Your task to perform on an android device: Open Google Chrome and open the bookmarks view Image 0: 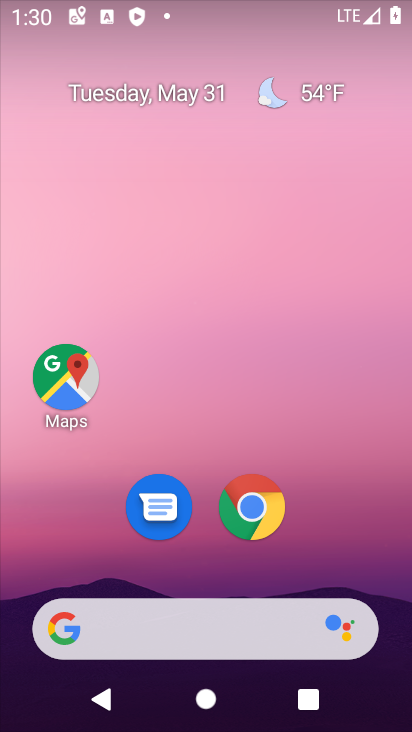
Step 0: drag from (384, 640) to (349, 65)
Your task to perform on an android device: Open Google Chrome and open the bookmarks view Image 1: 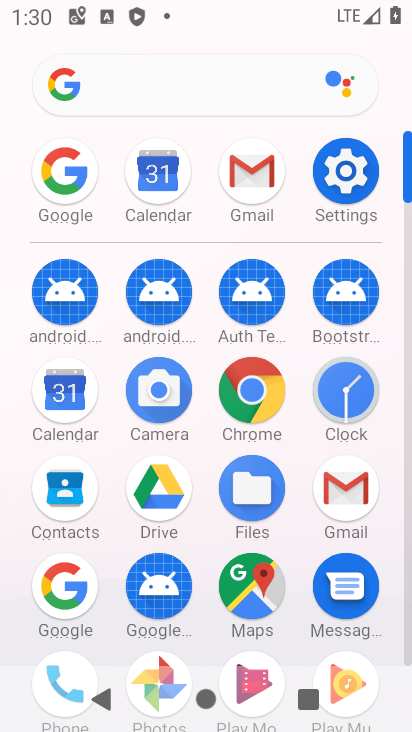
Step 1: click (255, 415)
Your task to perform on an android device: Open Google Chrome and open the bookmarks view Image 2: 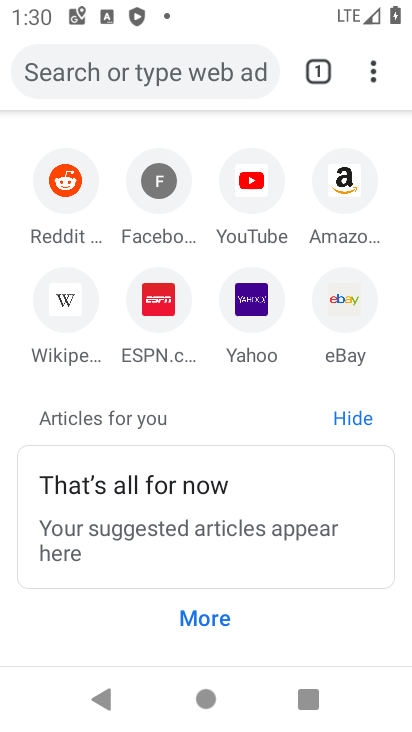
Step 2: click (369, 61)
Your task to perform on an android device: Open Google Chrome and open the bookmarks view Image 3: 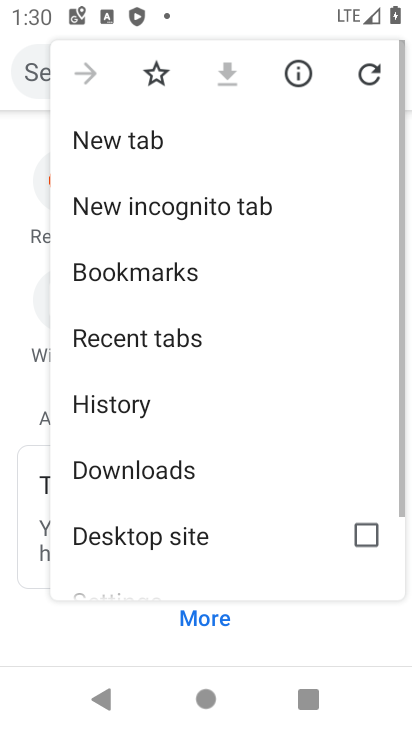
Step 3: click (182, 274)
Your task to perform on an android device: Open Google Chrome and open the bookmarks view Image 4: 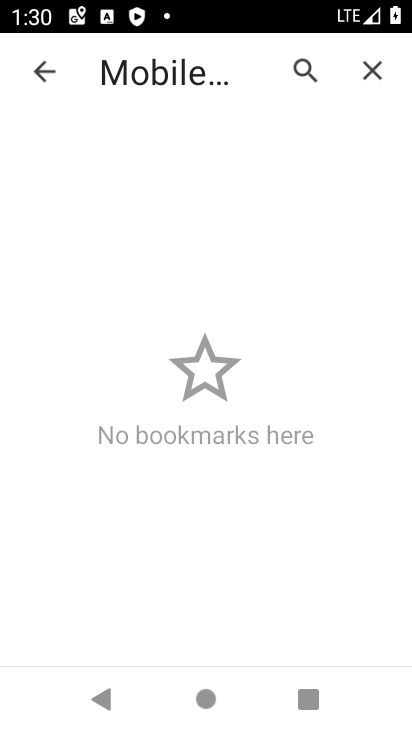
Step 4: task complete